Your task to perform on an android device: Go to Google Image 0: 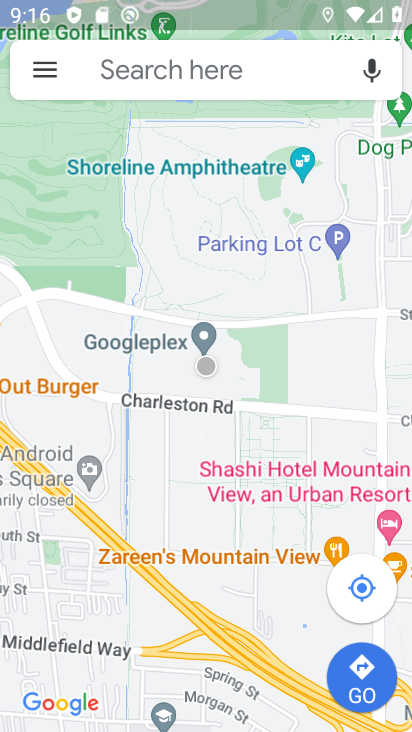
Step 0: press home button
Your task to perform on an android device: Go to Google Image 1: 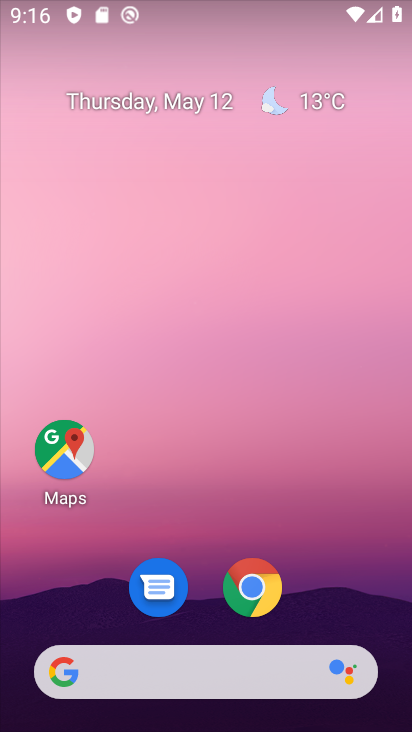
Step 1: drag from (369, 345) to (357, 31)
Your task to perform on an android device: Go to Google Image 2: 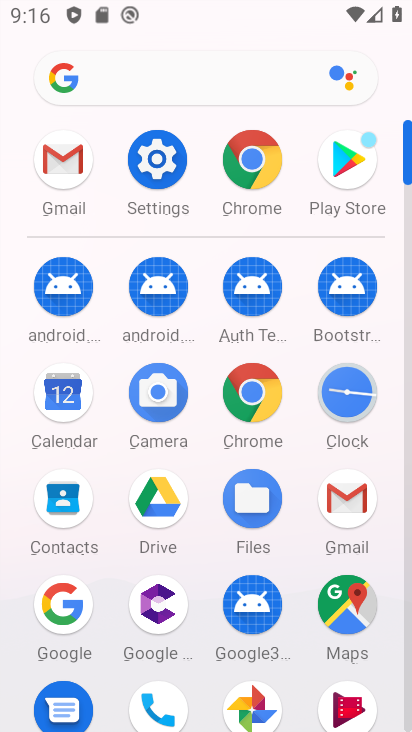
Step 2: click (68, 595)
Your task to perform on an android device: Go to Google Image 3: 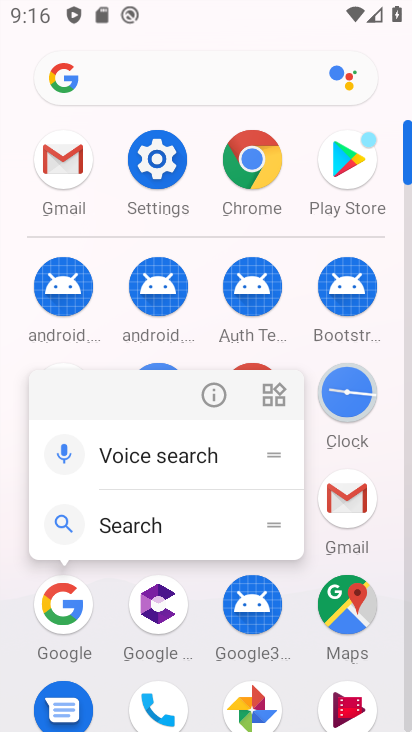
Step 3: click (64, 596)
Your task to perform on an android device: Go to Google Image 4: 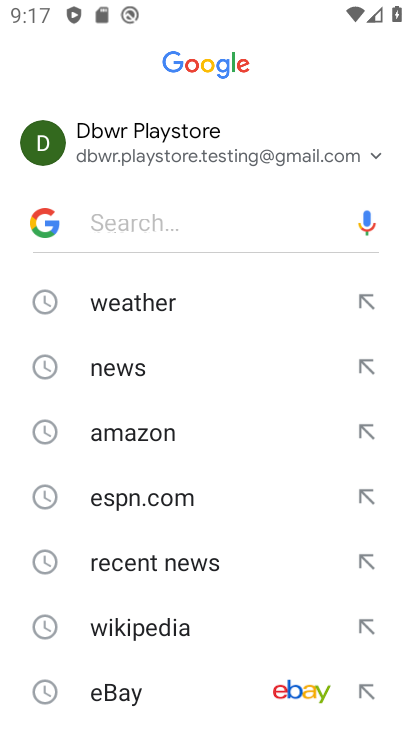
Step 4: task complete